Your task to perform on an android device: Open Google Chrome and open the bookmarks view Image 0: 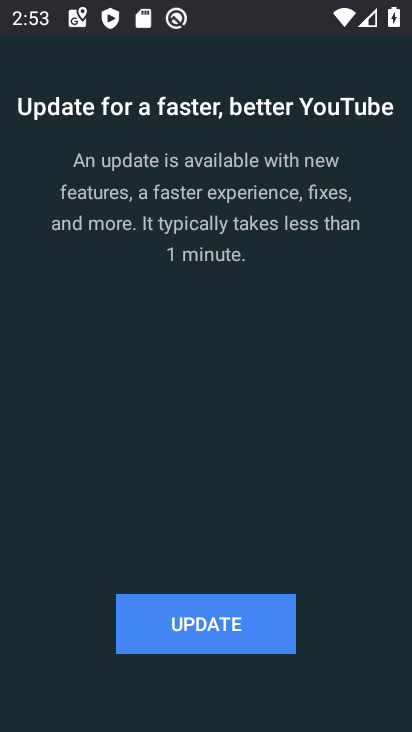
Step 0: drag from (205, 606) to (228, 432)
Your task to perform on an android device: Open Google Chrome and open the bookmarks view Image 1: 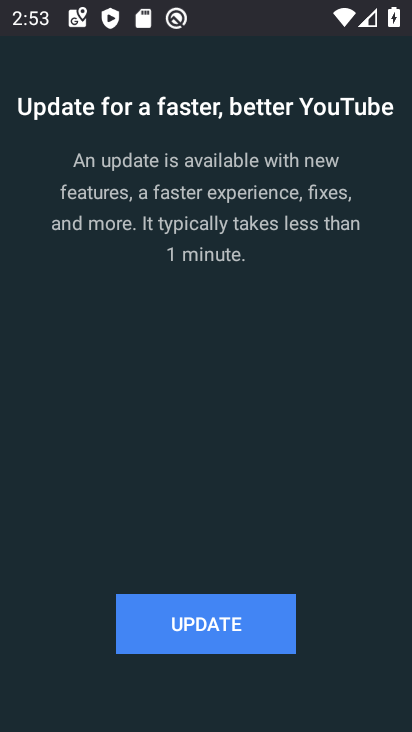
Step 1: press home button
Your task to perform on an android device: Open Google Chrome and open the bookmarks view Image 2: 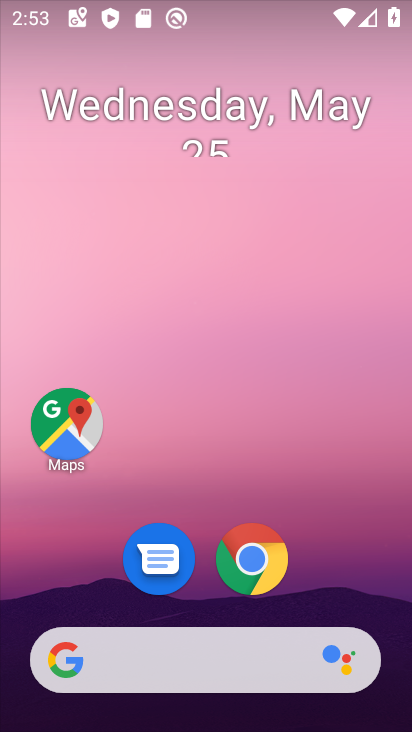
Step 2: drag from (204, 602) to (221, 176)
Your task to perform on an android device: Open Google Chrome and open the bookmarks view Image 3: 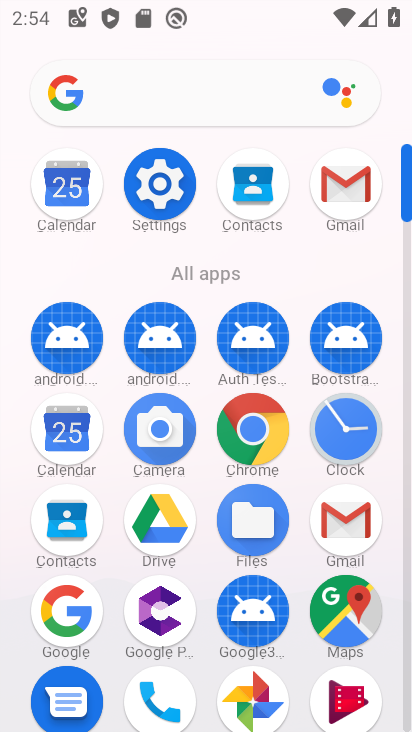
Step 3: click (250, 420)
Your task to perform on an android device: Open Google Chrome and open the bookmarks view Image 4: 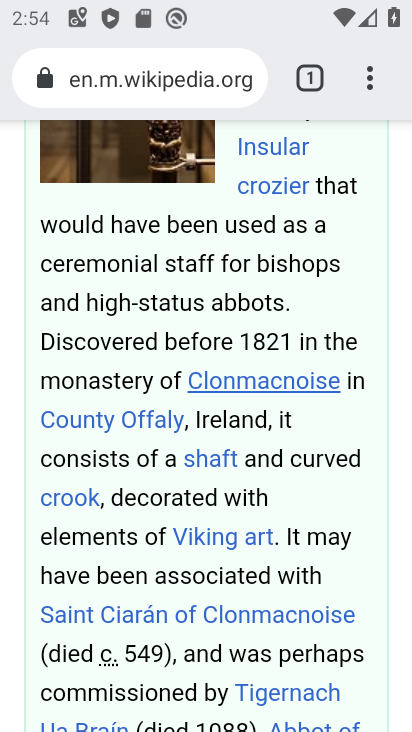
Step 4: click (361, 79)
Your task to perform on an android device: Open Google Chrome and open the bookmarks view Image 5: 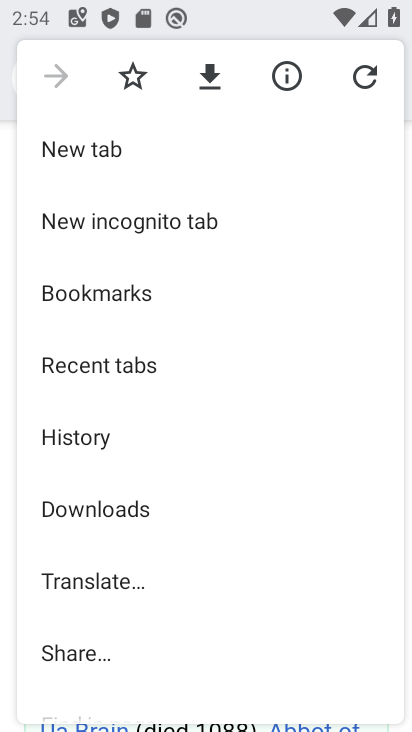
Step 5: click (167, 275)
Your task to perform on an android device: Open Google Chrome and open the bookmarks view Image 6: 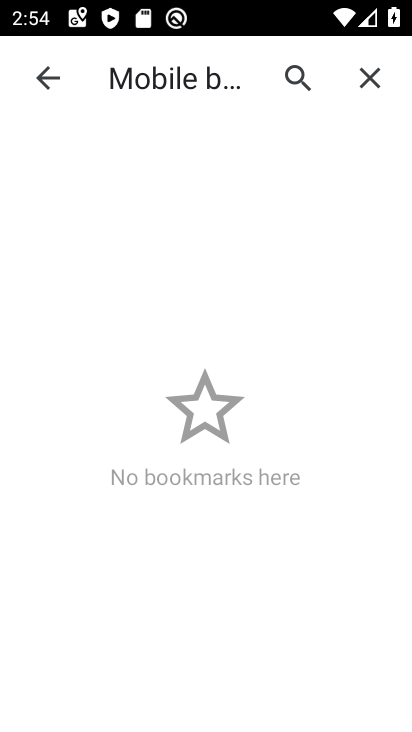
Step 6: task complete